Your task to perform on an android device: Go to sound settings Image 0: 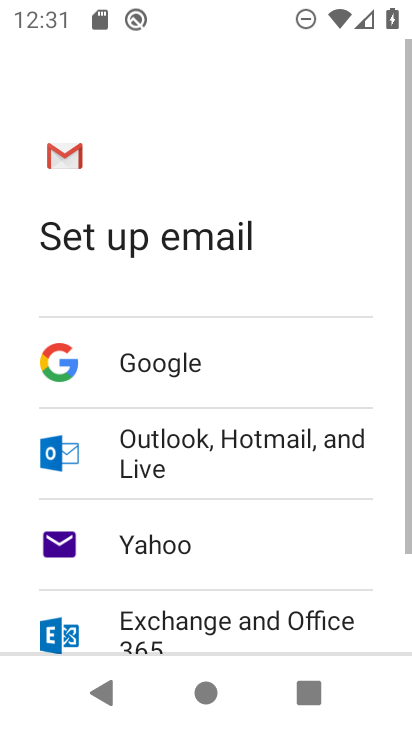
Step 0: press home button
Your task to perform on an android device: Go to sound settings Image 1: 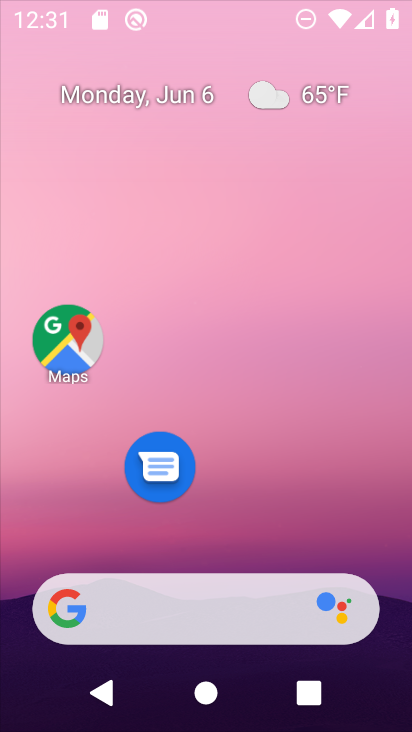
Step 1: drag from (301, 601) to (281, 21)
Your task to perform on an android device: Go to sound settings Image 2: 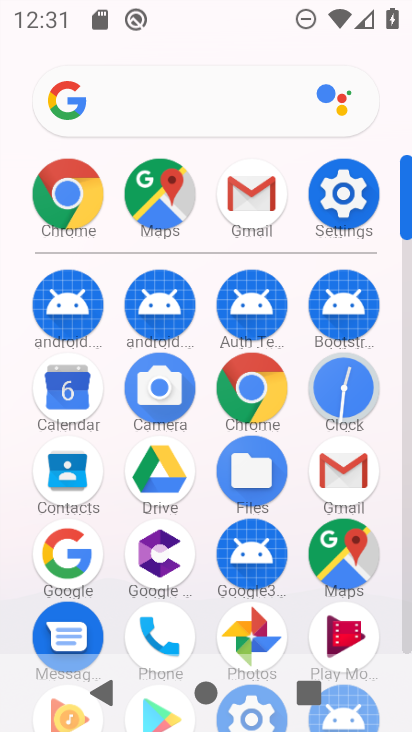
Step 2: click (344, 190)
Your task to perform on an android device: Go to sound settings Image 3: 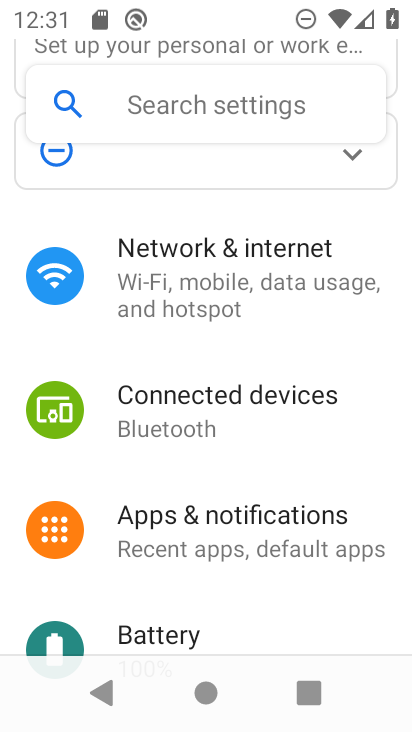
Step 3: drag from (170, 579) to (286, 288)
Your task to perform on an android device: Go to sound settings Image 4: 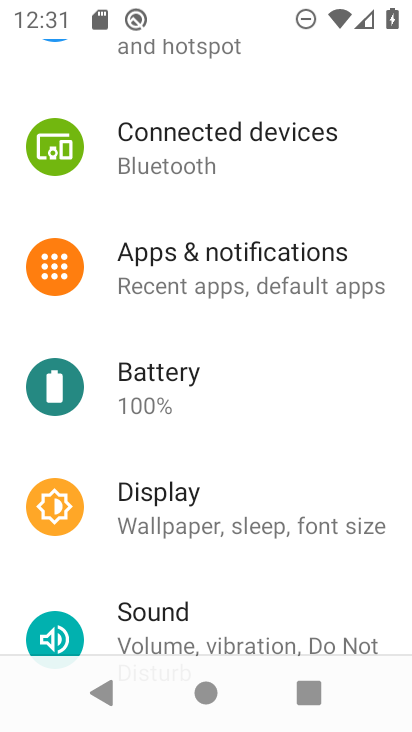
Step 4: drag from (199, 561) to (288, 338)
Your task to perform on an android device: Go to sound settings Image 5: 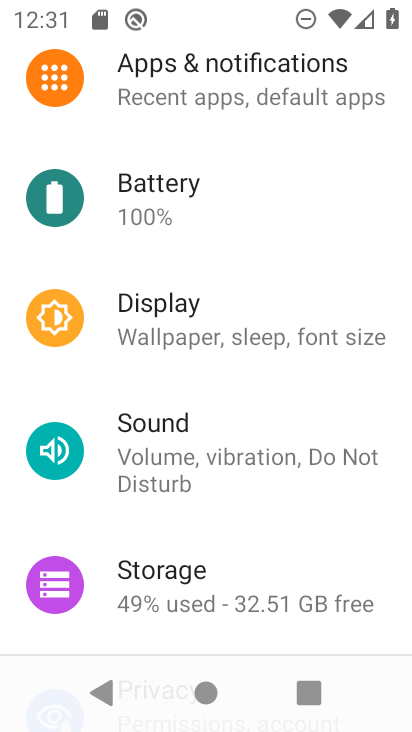
Step 5: click (274, 450)
Your task to perform on an android device: Go to sound settings Image 6: 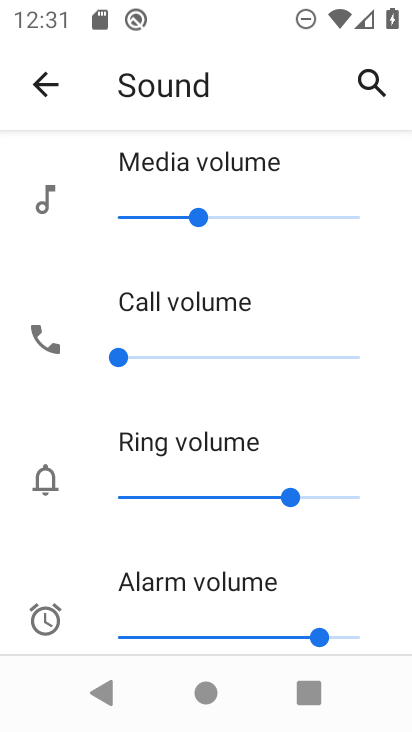
Step 6: task complete